Your task to perform on an android device: choose inbox layout in the gmail app Image 0: 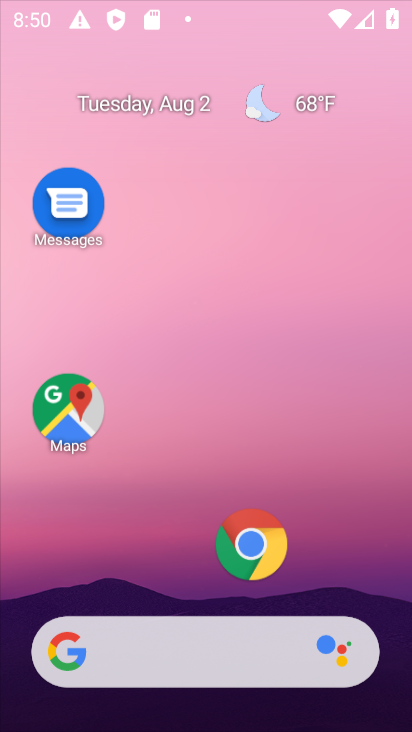
Step 0: click (164, 272)
Your task to perform on an android device: choose inbox layout in the gmail app Image 1: 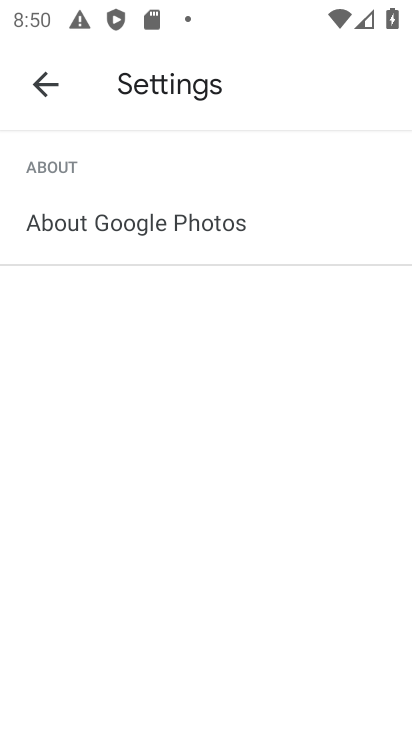
Step 1: press home button
Your task to perform on an android device: choose inbox layout in the gmail app Image 2: 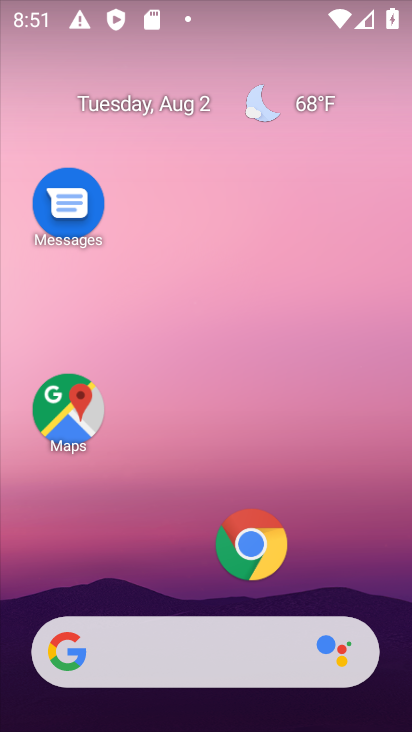
Step 2: drag from (178, 615) to (137, 395)
Your task to perform on an android device: choose inbox layout in the gmail app Image 3: 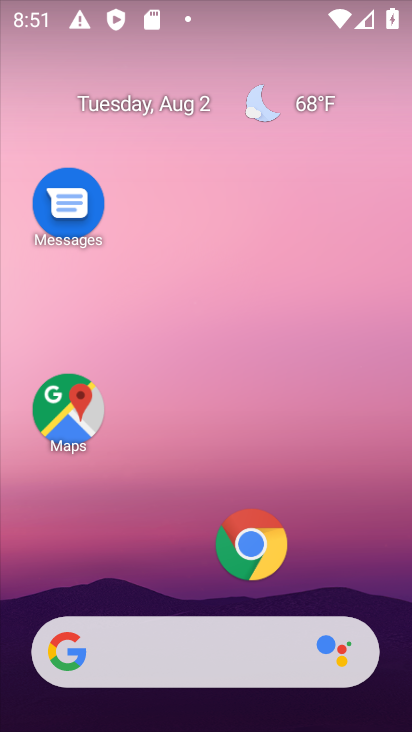
Step 3: drag from (202, 616) to (187, 338)
Your task to perform on an android device: choose inbox layout in the gmail app Image 4: 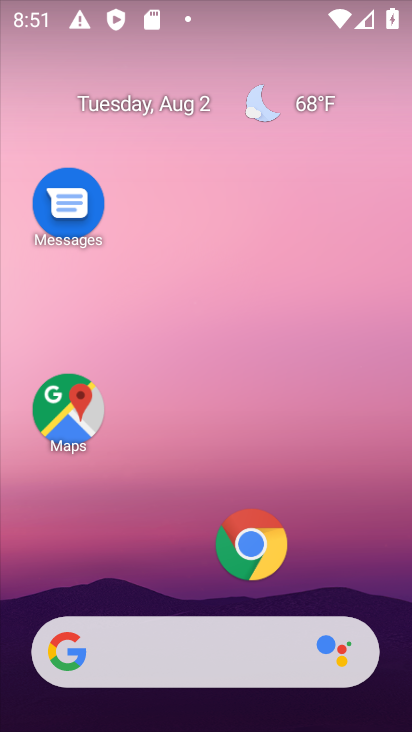
Step 4: drag from (228, 612) to (232, 247)
Your task to perform on an android device: choose inbox layout in the gmail app Image 5: 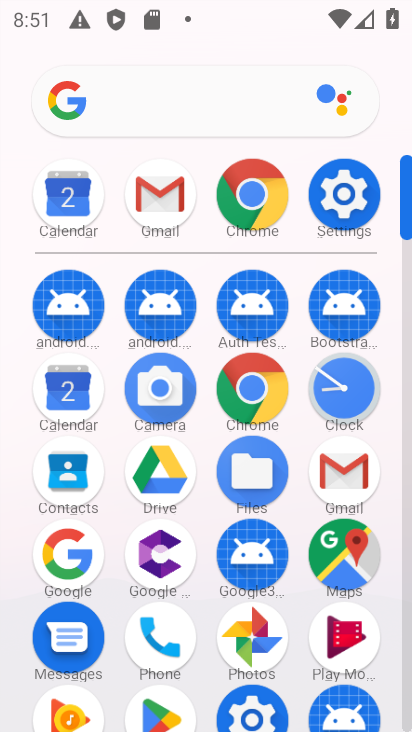
Step 5: click (158, 196)
Your task to perform on an android device: choose inbox layout in the gmail app Image 6: 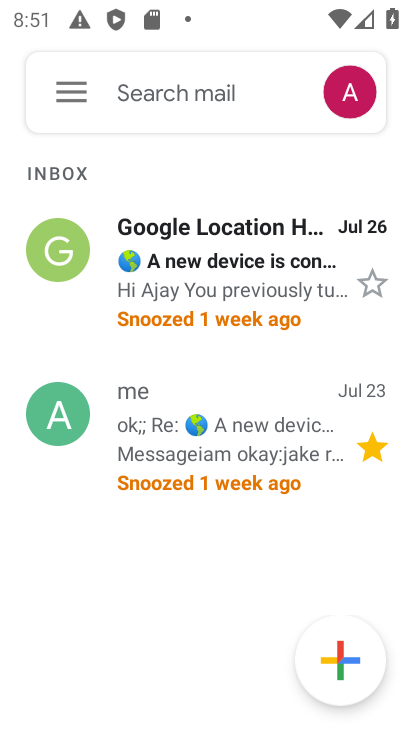
Step 6: click (88, 85)
Your task to perform on an android device: choose inbox layout in the gmail app Image 7: 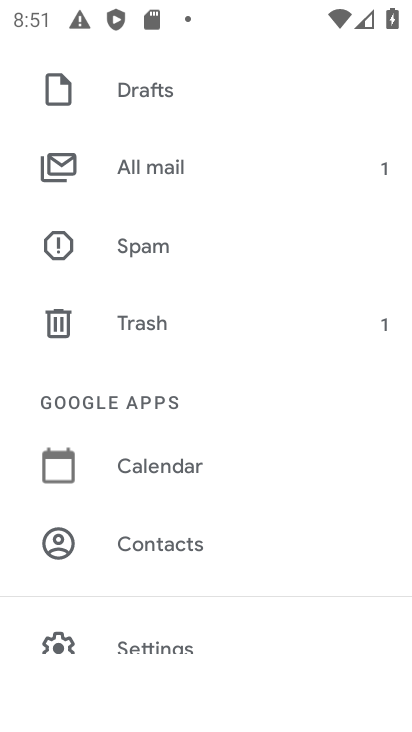
Step 7: drag from (174, 636) to (174, 366)
Your task to perform on an android device: choose inbox layout in the gmail app Image 8: 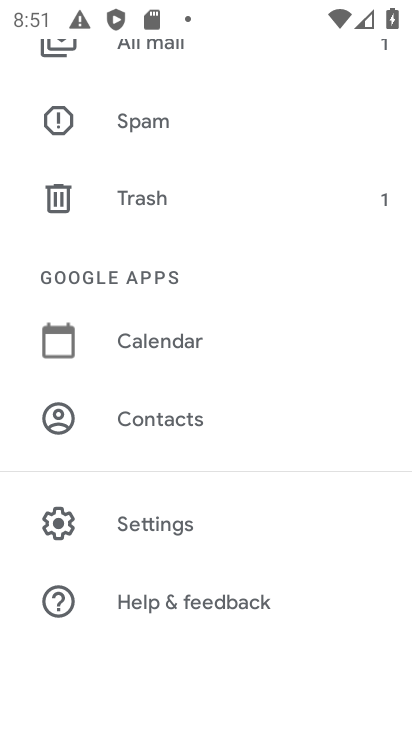
Step 8: click (148, 525)
Your task to perform on an android device: choose inbox layout in the gmail app Image 9: 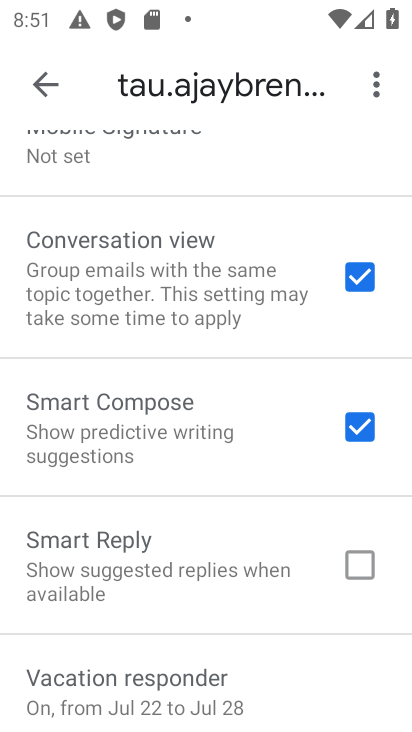
Step 9: drag from (95, 691) to (95, 420)
Your task to perform on an android device: choose inbox layout in the gmail app Image 10: 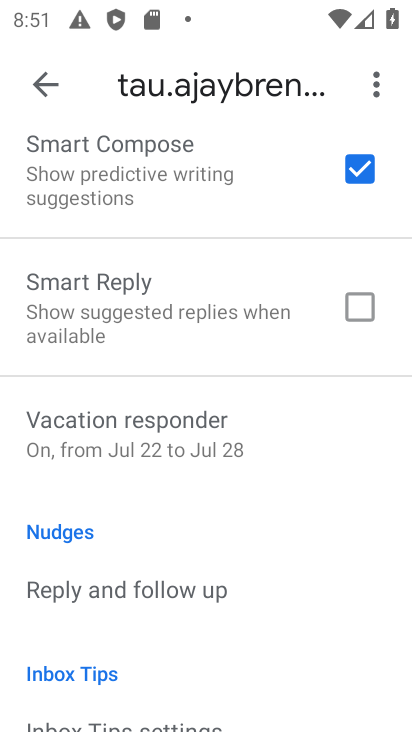
Step 10: drag from (114, 257) to (127, 559)
Your task to perform on an android device: choose inbox layout in the gmail app Image 11: 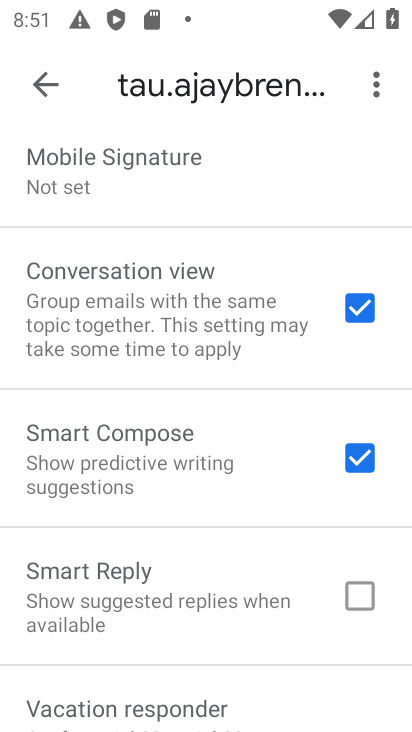
Step 11: drag from (112, 710) to (83, 410)
Your task to perform on an android device: choose inbox layout in the gmail app Image 12: 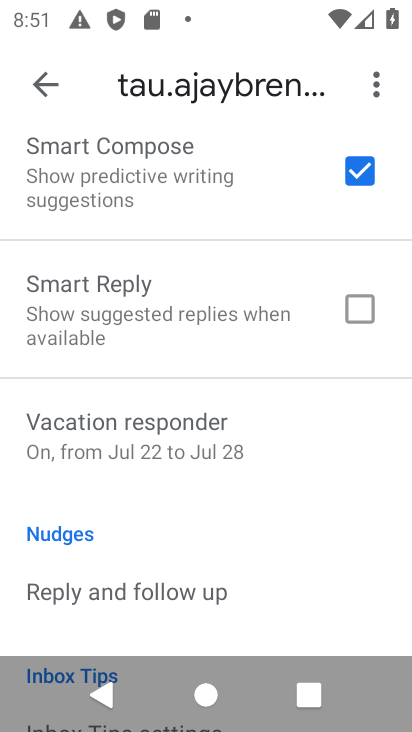
Step 12: drag from (133, 616) to (133, 472)
Your task to perform on an android device: choose inbox layout in the gmail app Image 13: 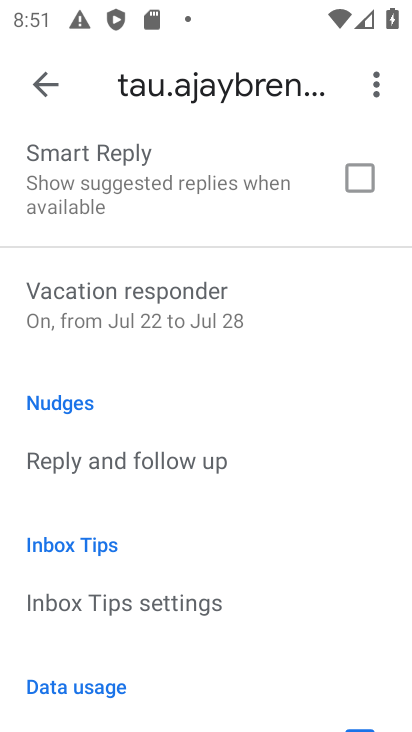
Step 13: click (115, 599)
Your task to perform on an android device: choose inbox layout in the gmail app Image 14: 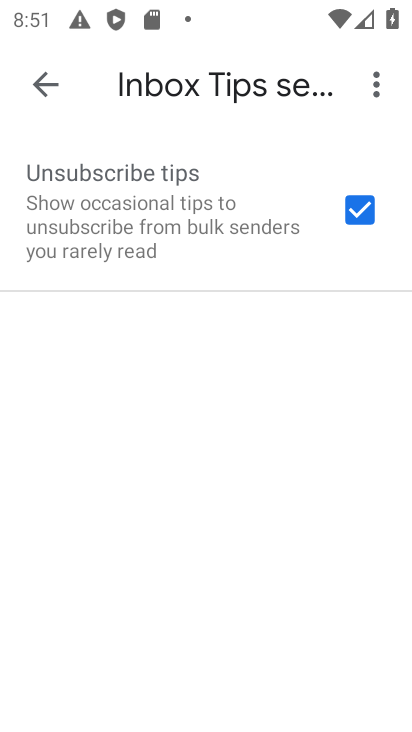
Step 14: click (50, 90)
Your task to perform on an android device: choose inbox layout in the gmail app Image 15: 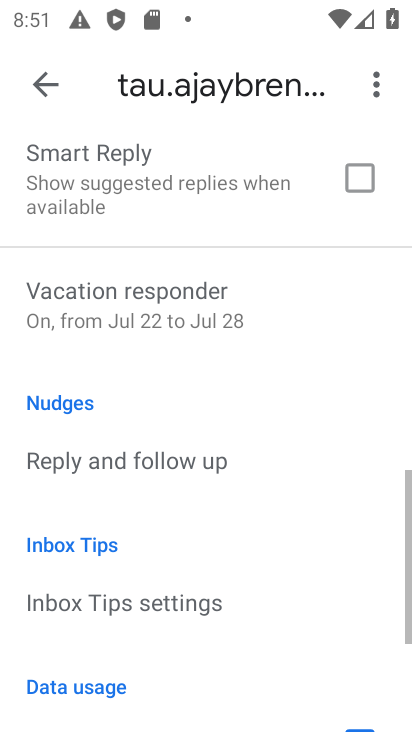
Step 15: drag from (104, 188) to (118, 640)
Your task to perform on an android device: choose inbox layout in the gmail app Image 16: 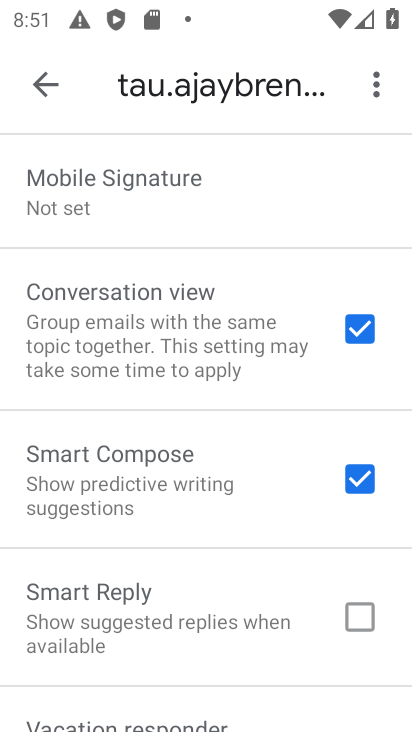
Step 16: drag from (115, 165) to (133, 633)
Your task to perform on an android device: choose inbox layout in the gmail app Image 17: 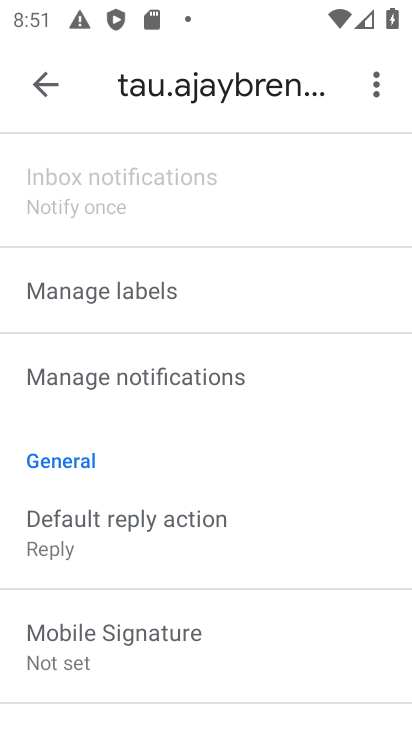
Step 17: drag from (111, 193) to (125, 608)
Your task to perform on an android device: choose inbox layout in the gmail app Image 18: 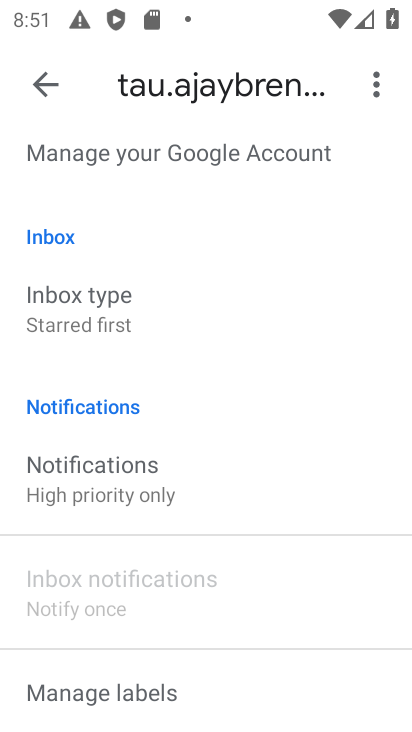
Step 18: click (90, 303)
Your task to perform on an android device: choose inbox layout in the gmail app Image 19: 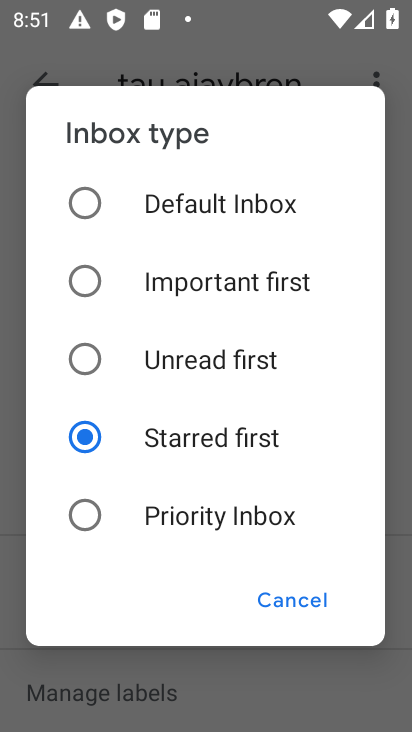
Step 19: click (127, 273)
Your task to perform on an android device: choose inbox layout in the gmail app Image 20: 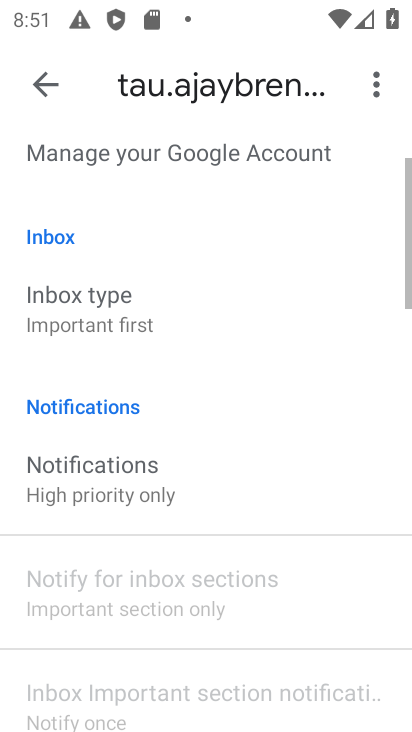
Step 20: task complete